Your task to perform on an android device: turn on priority inbox in the gmail app Image 0: 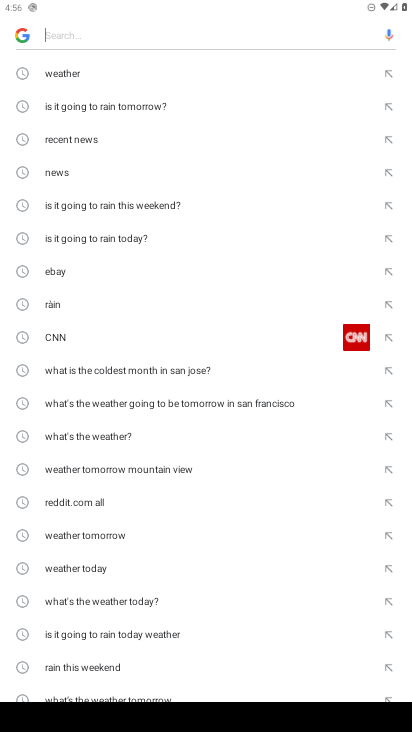
Step 0: press home button
Your task to perform on an android device: turn on priority inbox in the gmail app Image 1: 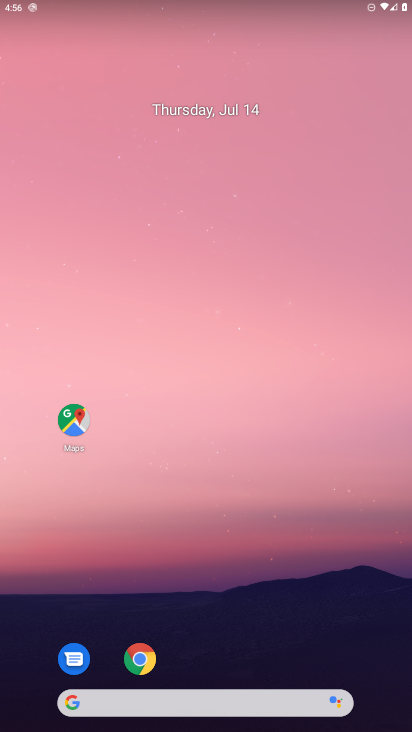
Step 1: drag from (219, 664) to (239, 50)
Your task to perform on an android device: turn on priority inbox in the gmail app Image 2: 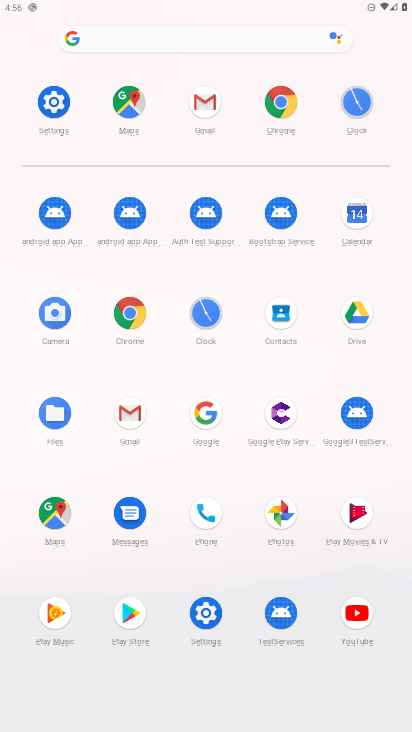
Step 2: click (204, 94)
Your task to perform on an android device: turn on priority inbox in the gmail app Image 3: 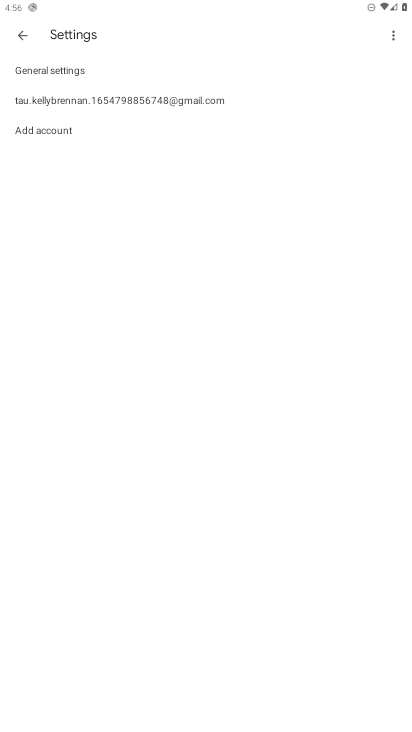
Step 3: click (113, 96)
Your task to perform on an android device: turn on priority inbox in the gmail app Image 4: 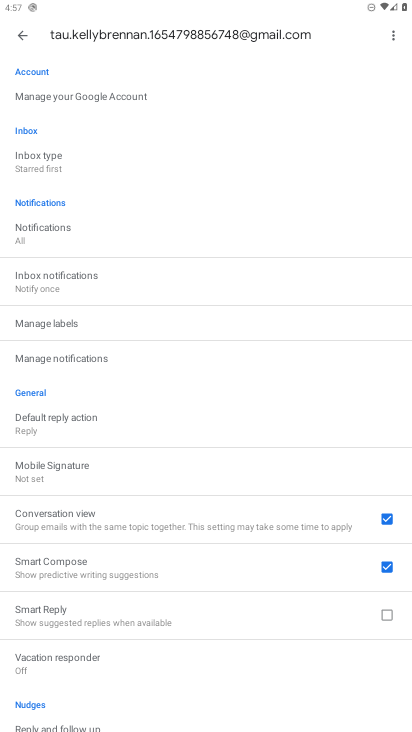
Step 4: click (53, 159)
Your task to perform on an android device: turn on priority inbox in the gmail app Image 5: 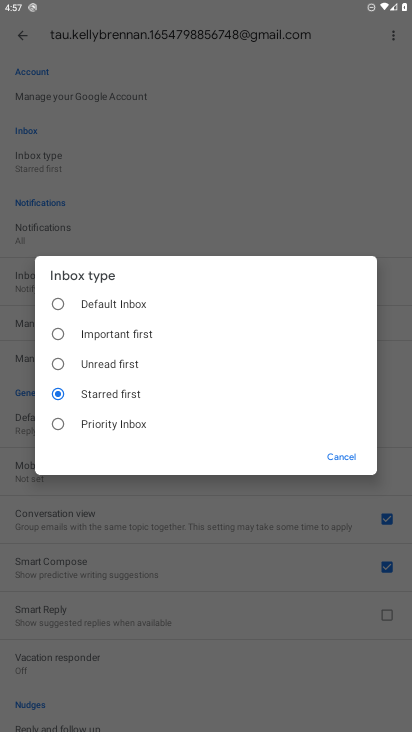
Step 5: click (61, 420)
Your task to perform on an android device: turn on priority inbox in the gmail app Image 6: 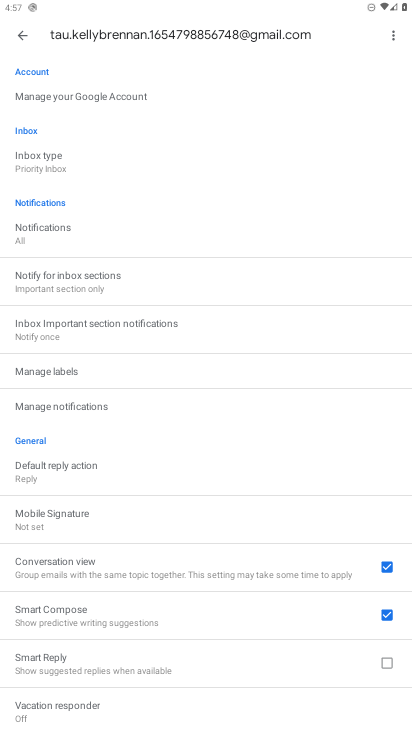
Step 6: task complete